Your task to perform on an android device: Open Chrome and go to the settings page Image 0: 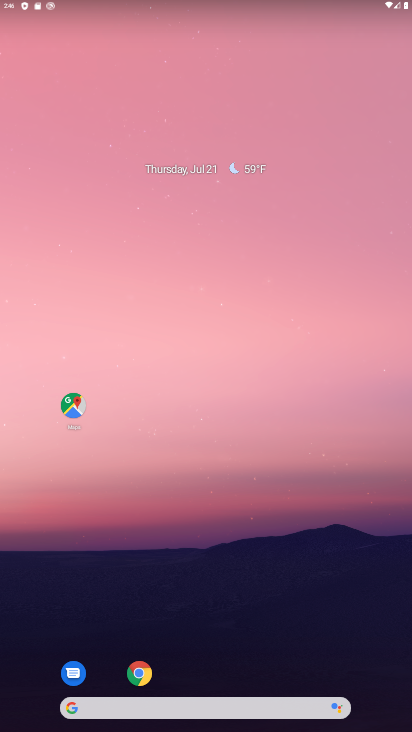
Step 0: click (138, 673)
Your task to perform on an android device: Open Chrome and go to the settings page Image 1: 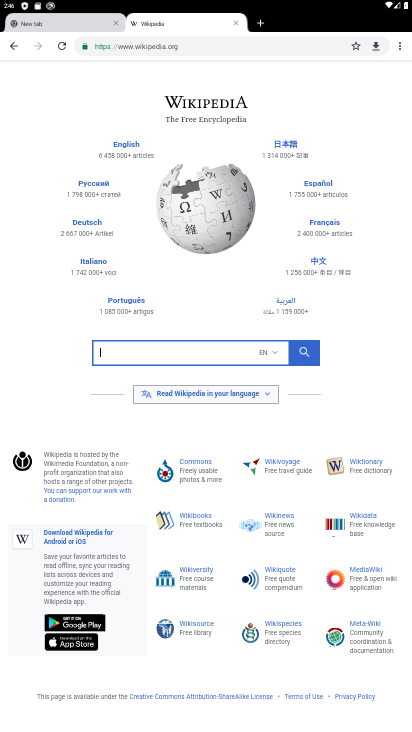
Step 1: click (400, 51)
Your task to perform on an android device: Open Chrome and go to the settings page Image 2: 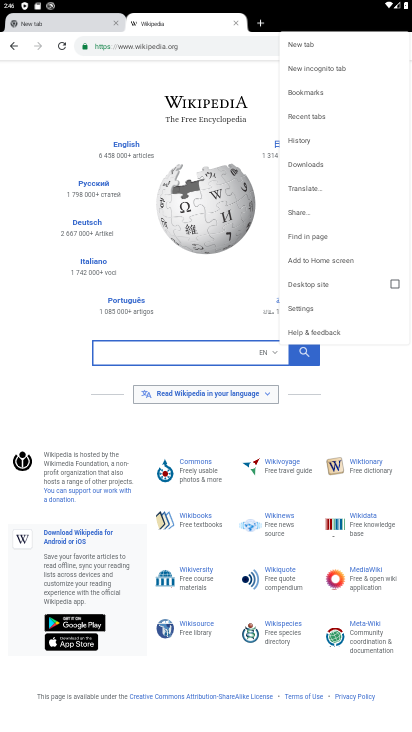
Step 2: click (296, 311)
Your task to perform on an android device: Open Chrome and go to the settings page Image 3: 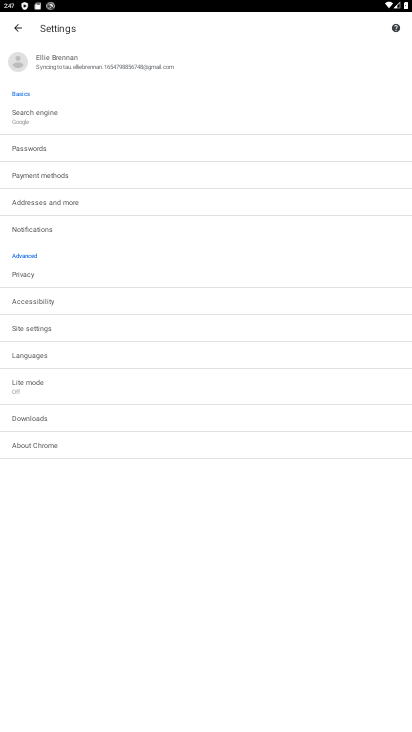
Step 3: task complete